Your task to perform on an android device: Go to notification settings Image 0: 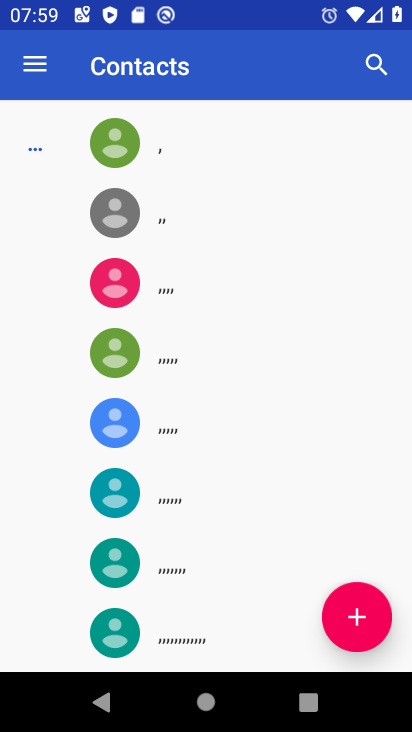
Step 0: press home button
Your task to perform on an android device: Go to notification settings Image 1: 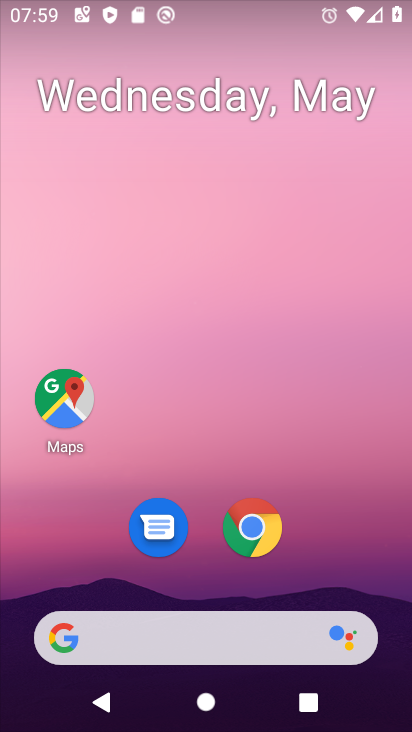
Step 1: drag from (335, 566) to (350, 132)
Your task to perform on an android device: Go to notification settings Image 2: 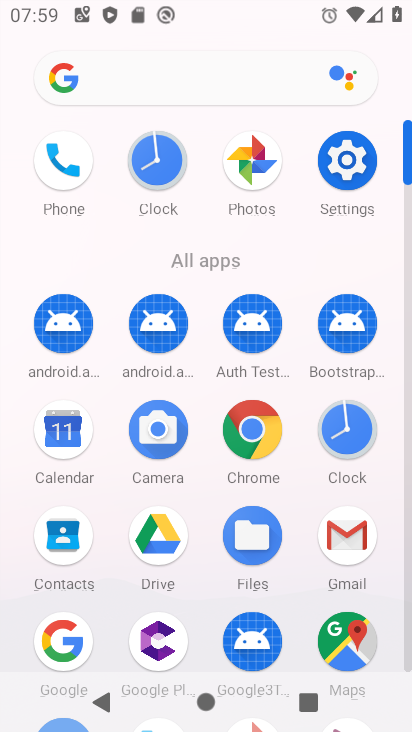
Step 2: click (328, 178)
Your task to perform on an android device: Go to notification settings Image 3: 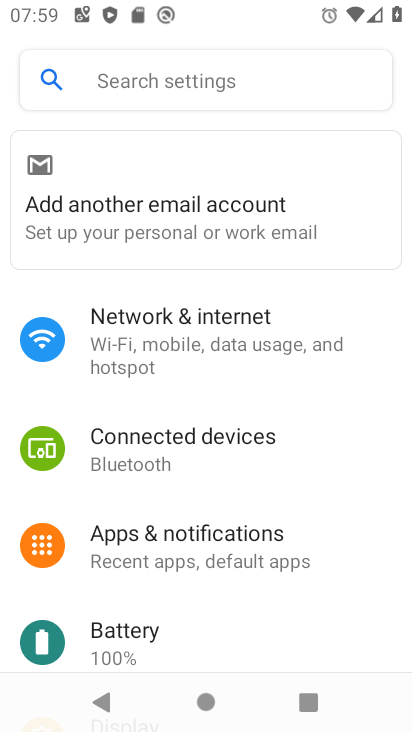
Step 3: click (223, 559)
Your task to perform on an android device: Go to notification settings Image 4: 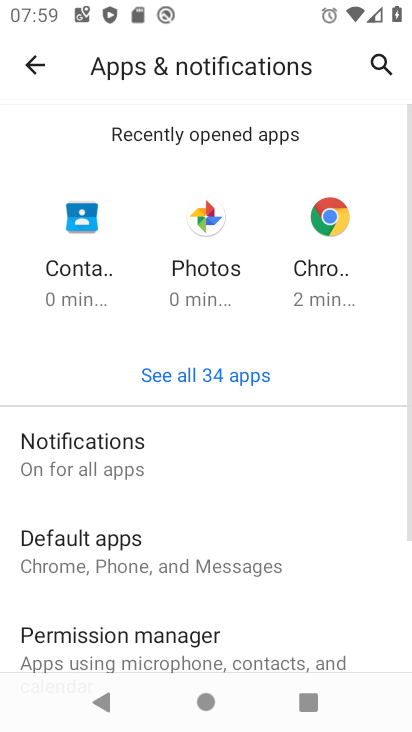
Step 4: task complete